Your task to perform on an android device: check storage Image 0: 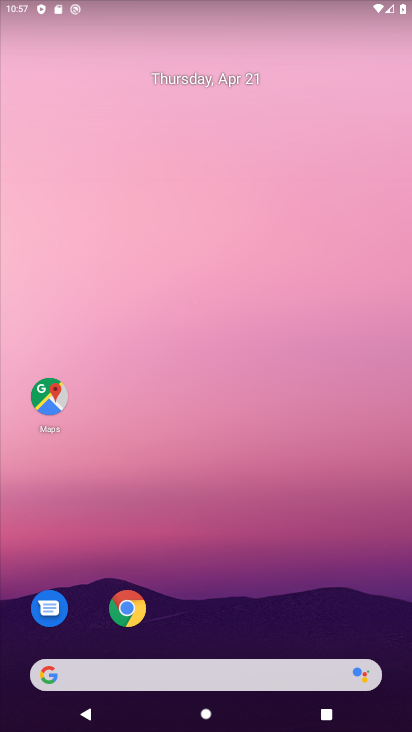
Step 0: drag from (191, 591) to (206, 212)
Your task to perform on an android device: check storage Image 1: 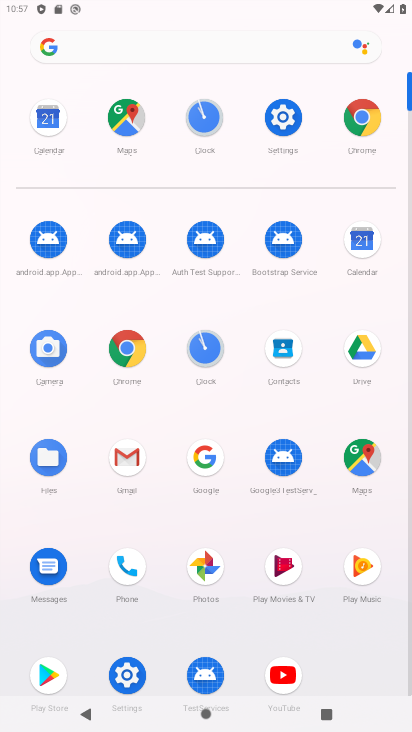
Step 1: click (287, 113)
Your task to perform on an android device: check storage Image 2: 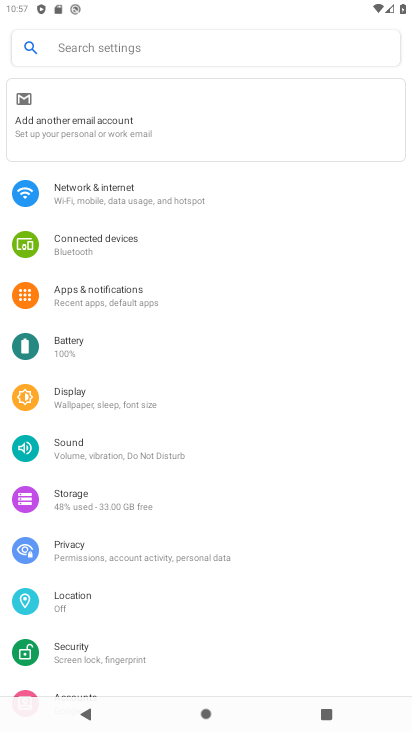
Step 2: click (54, 506)
Your task to perform on an android device: check storage Image 3: 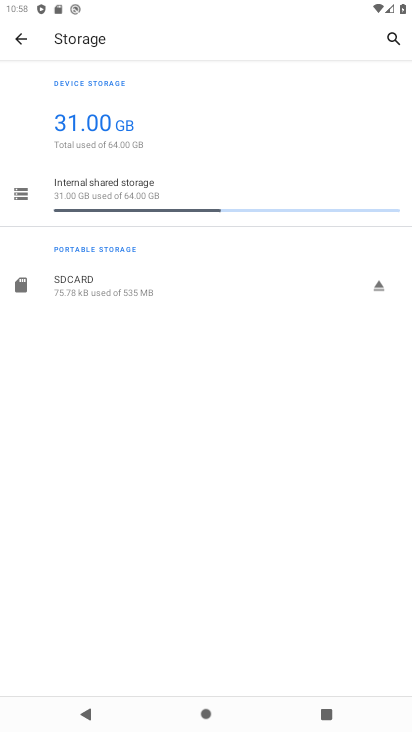
Step 3: task complete